Your task to perform on an android device: delete the emails in spam in the gmail app Image 0: 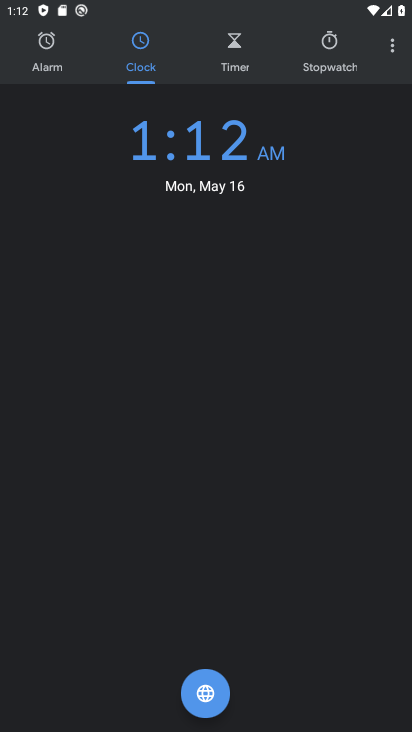
Step 0: press home button
Your task to perform on an android device: delete the emails in spam in the gmail app Image 1: 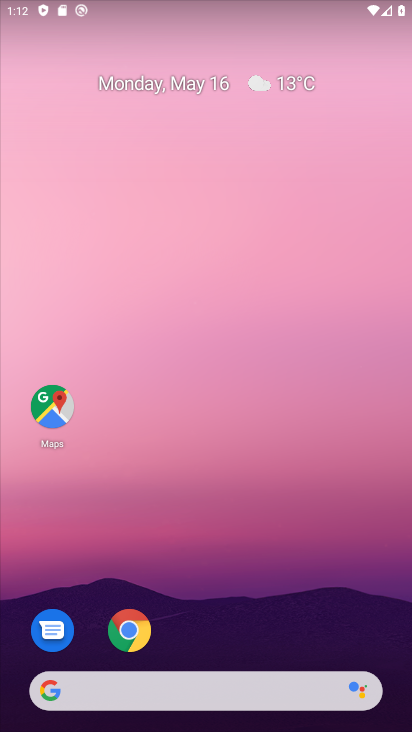
Step 1: drag from (245, 302) to (228, 178)
Your task to perform on an android device: delete the emails in spam in the gmail app Image 2: 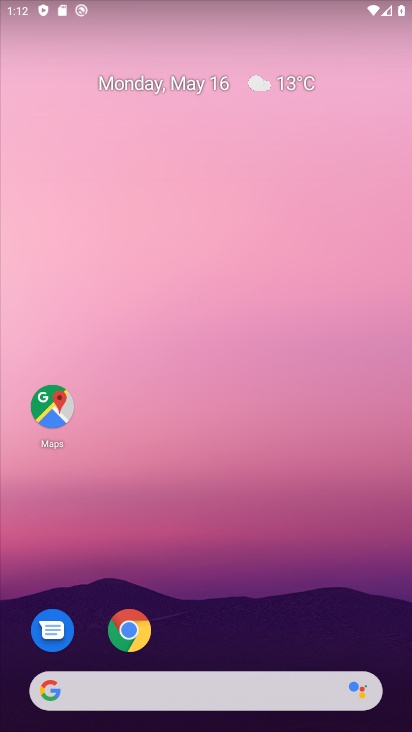
Step 2: drag from (296, 522) to (262, 0)
Your task to perform on an android device: delete the emails in spam in the gmail app Image 3: 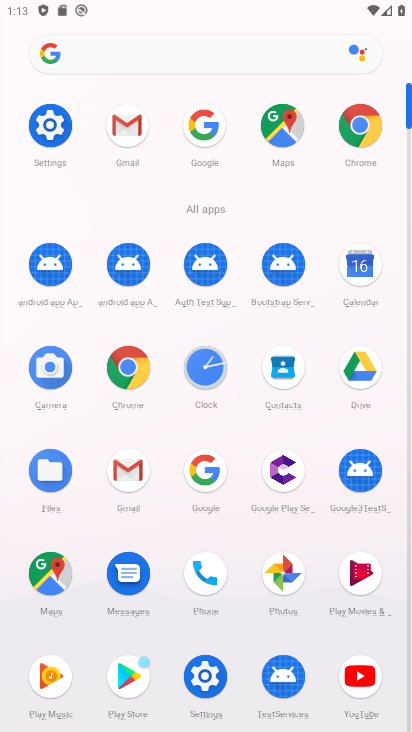
Step 3: click (125, 137)
Your task to perform on an android device: delete the emails in spam in the gmail app Image 4: 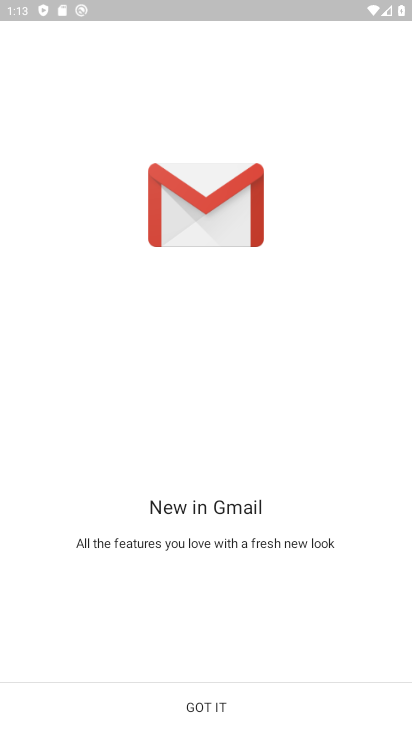
Step 4: click (183, 713)
Your task to perform on an android device: delete the emails in spam in the gmail app Image 5: 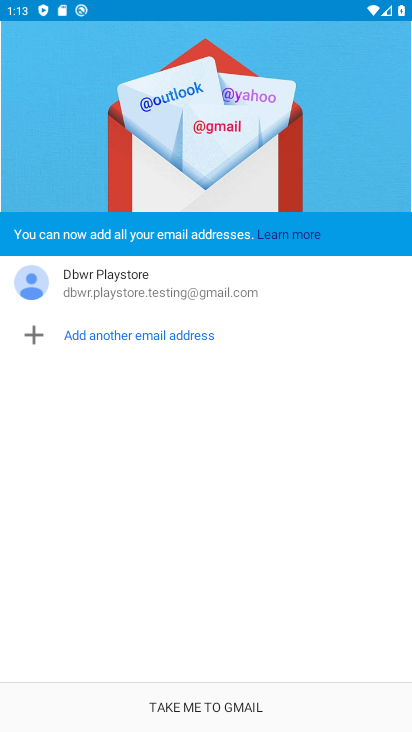
Step 5: click (200, 546)
Your task to perform on an android device: delete the emails in spam in the gmail app Image 6: 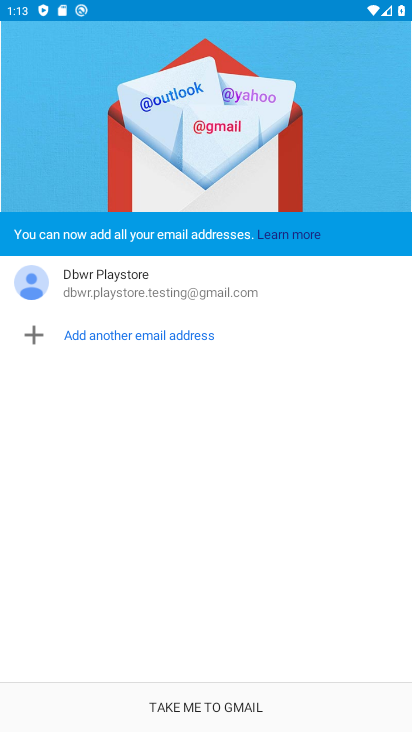
Step 6: click (161, 711)
Your task to perform on an android device: delete the emails in spam in the gmail app Image 7: 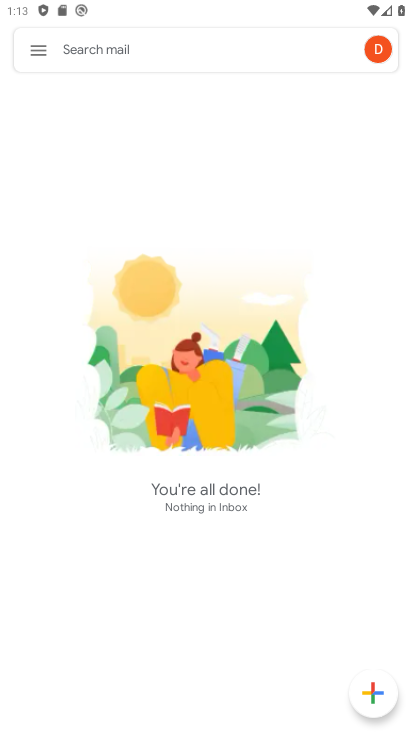
Step 7: click (34, 39)
Your task to perform on an android device: delete the emails in spam in the gmail app Image 8: 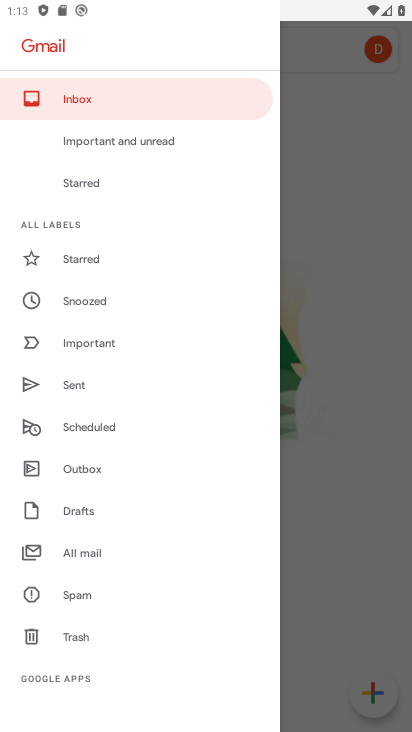
Step 8: drag from (156, 574) to (170, 188)
Your task to perform on an android device: delete the emails in spam in the gmail app Image 9: 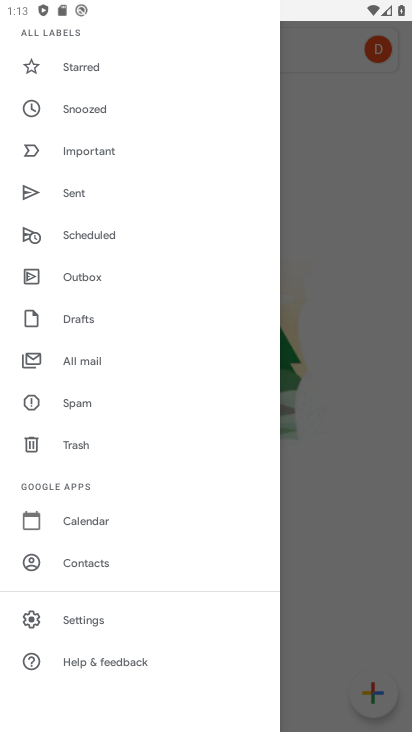
Step 9: drag from (164, 202) to (123, 589)
Your task to perform on an android device: delete the emails in spam in the gmail app Image 10: 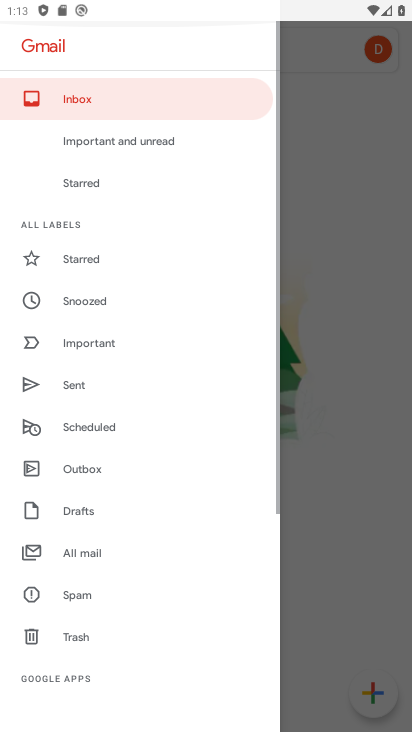
Step 10: drag from (145, 611) to (193, 99)
Your task to perform on an android device: delete the emails in spam in the gmail app Image 11: 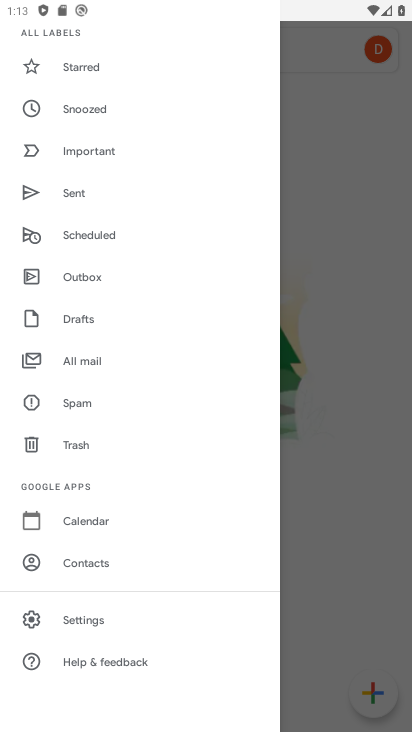
Step 11: click (91, 406)
Your task to perform on an android device: delete the emails in spam in the gmail app Image 12: 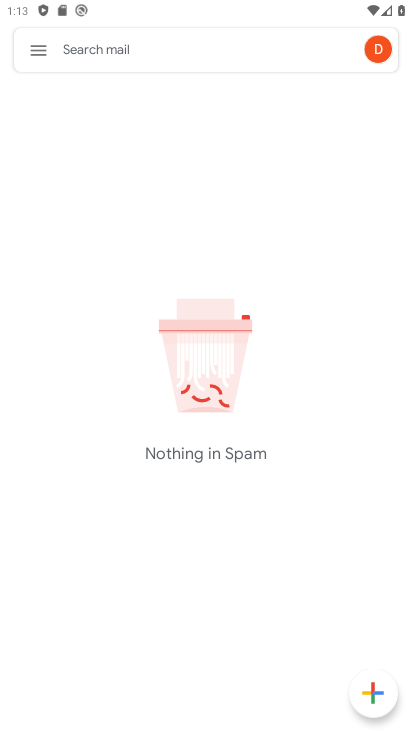
Step 12: task complete